Your task to perform on an android device: Open Youtube and go to the subscriptions tab Image 0: 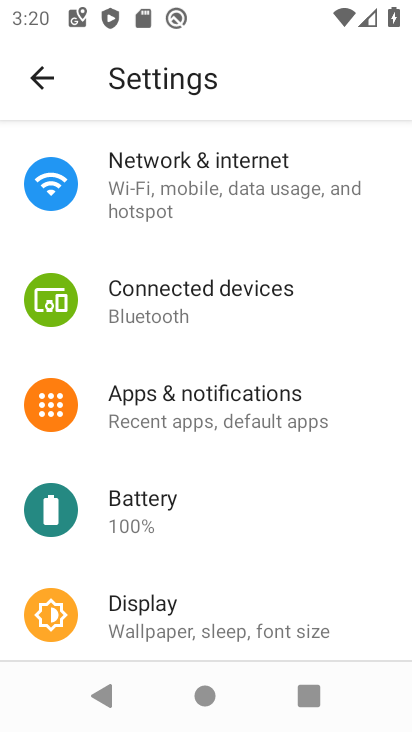
Step 0: press home button
Your task to perform on an android device: Open Youtube and go to the subscriptions tab Image 1: 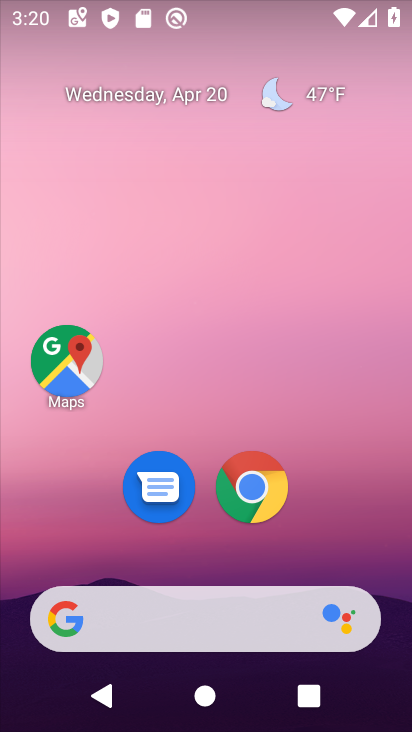
Step 1: drag from (366, 539) to (399, 140)
Your task to perform on an android device: Open Youtube and go to the subscriptions tab Image 2: 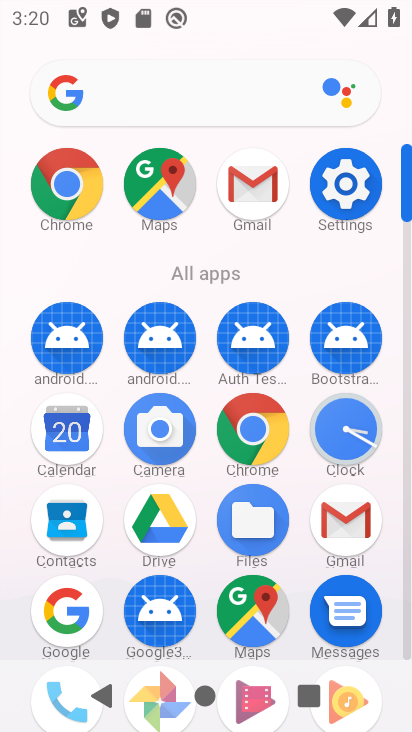
Step 2: drag from (390, 553) to (404, 222)
Your task to perform on an android device: Open Youtube and go to the subscriptions tab Image 3: 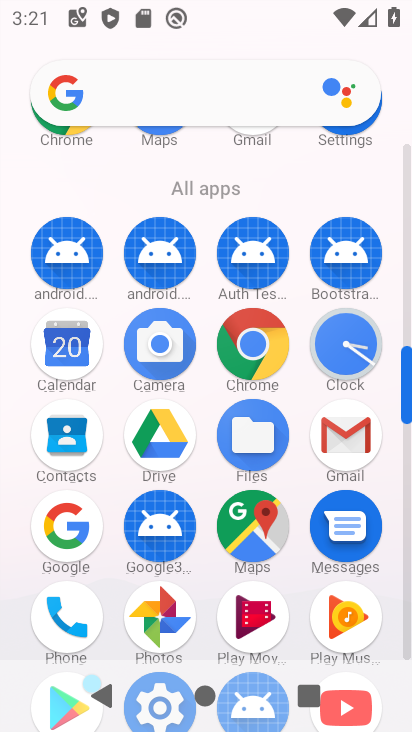
Step 3: drag from (373, 576) to (378, 280)
Your task to perform on an android device: Open Youtube and go to the subscriptions tab Image 4: 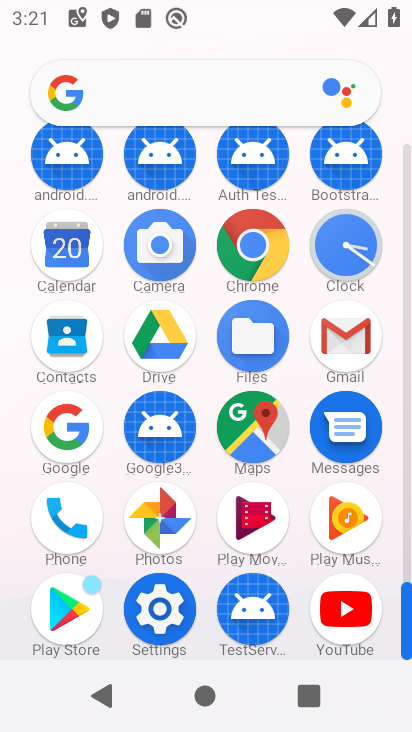
Step 4: click (339, 607)
Your task to perform on an android device: Open Youtube and go to the subscriptions tab Image 5: 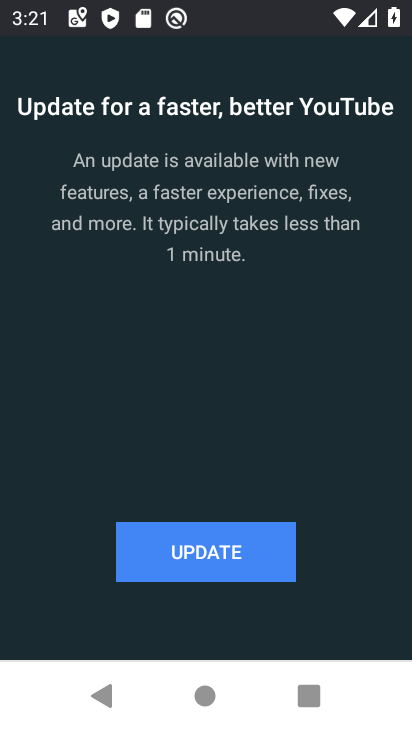
Step 5: press home button
Your task to perform on an android device: Open Youtube and go to the subscriptions tab Image 6: 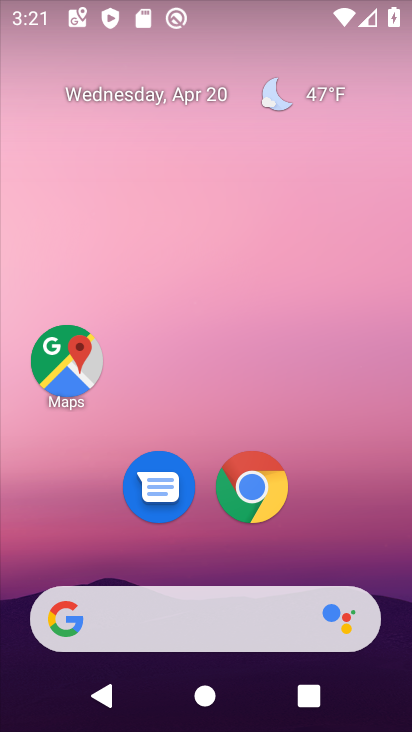
Step 6: drag from (366, 534) to (365, 189)
Your task to perform on an android device: Open Youtube and go to the subscriptions tab Image 7: 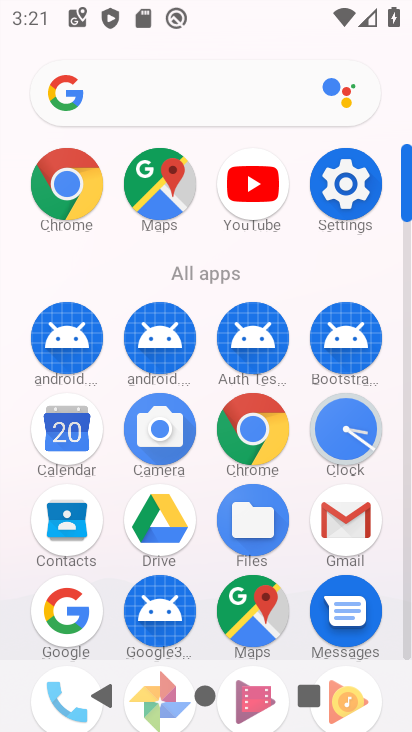
Step 7: click (239, 186)
Your task to perform on an android device: Open Youtube and go to the subscriptions tab Image 8: 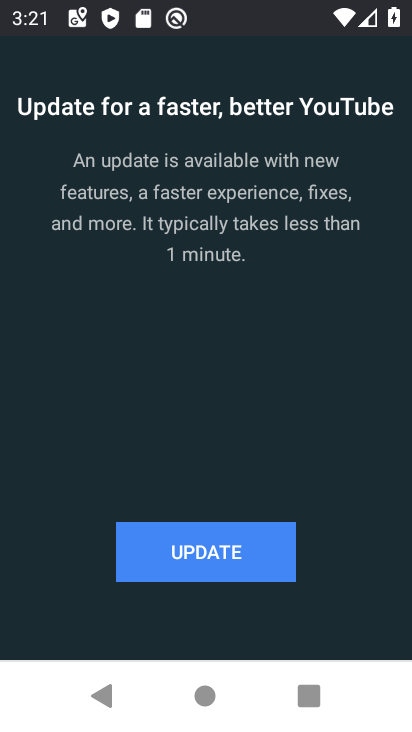
Step 8: click (262, 547)
Your task to perform on an android device: Open Youtube and go to the subscriptions tab Image 9: 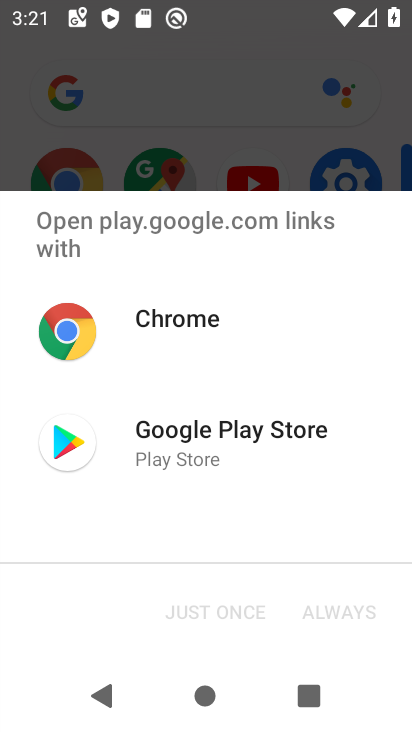
Step 9: click (220, 438)
Your task to perform on an android device: Open Youtube and go to the subscriptions tab Image 10: 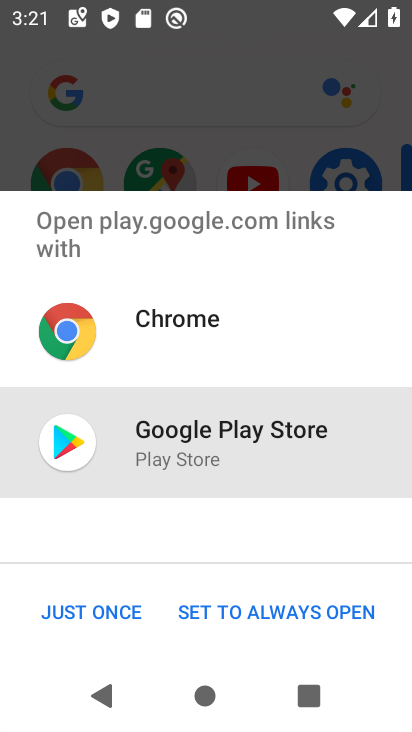
Step 10: click (95, 607)
Your task to perform on an android device: Open Youtube and go to the subscriptions tab Image 11: 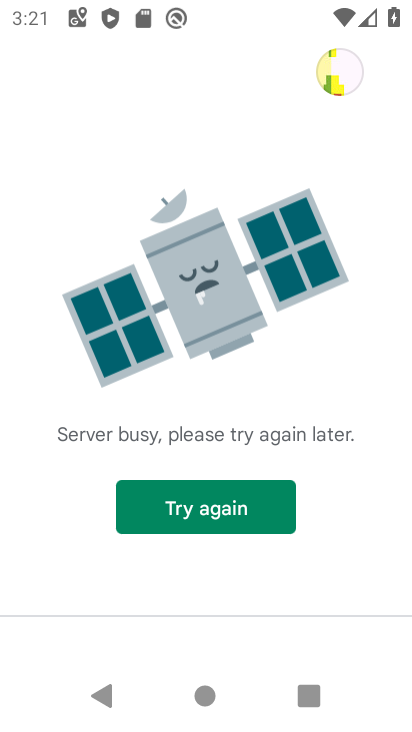
Step 11: task complete